Your task to perform on an android device: check android version Image 0: 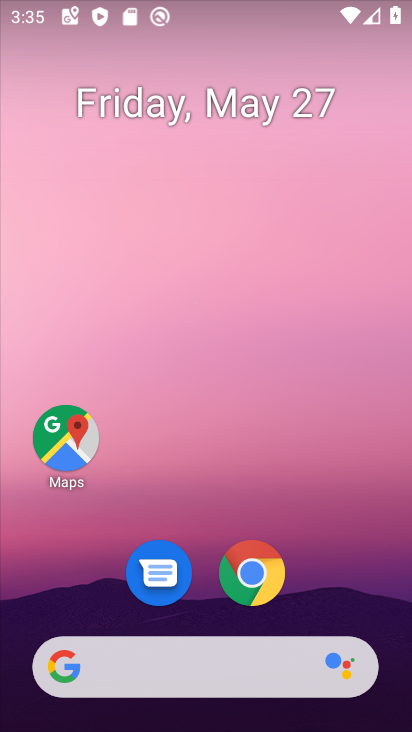
Step 0: drag from (224, 483) to (243, 4)
Your task to perform on an android device: check android version Image 1: 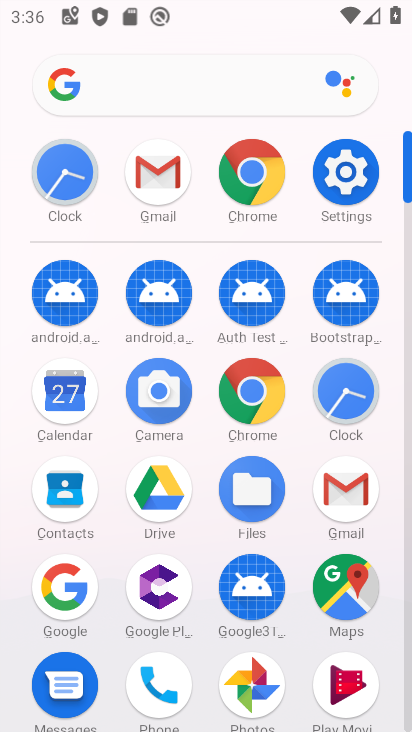
Step 1: click (343, 173)
Your task to perform on an android device: check android version Image 2: 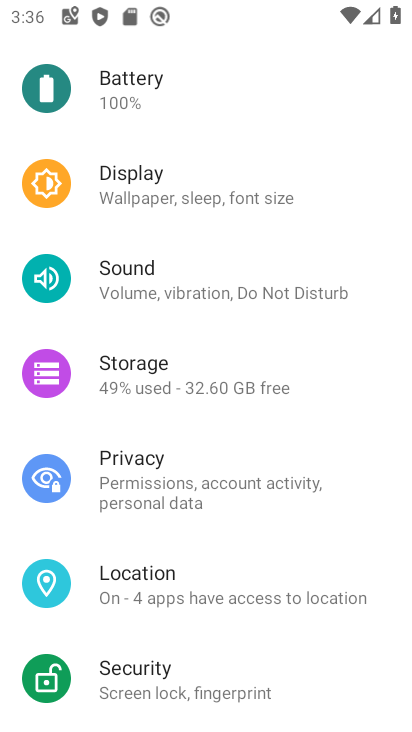
Step 2: drag from (236, 669) to (232, 157)
Your task to perform on an android device: check android version Image 3: 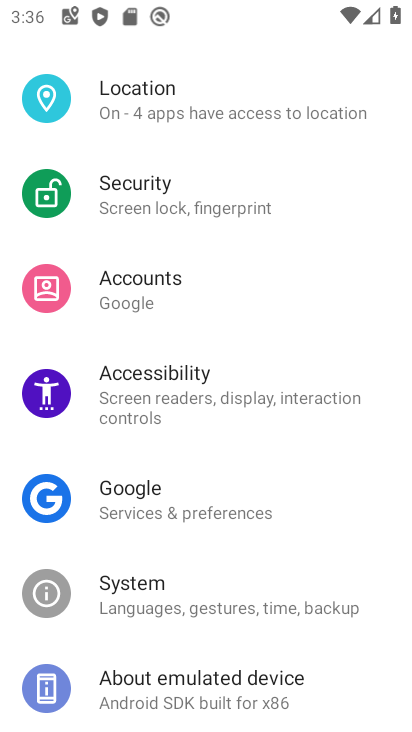
Step 3: click (207, 687)
Your task to perform on an android device: check android version Image 4: 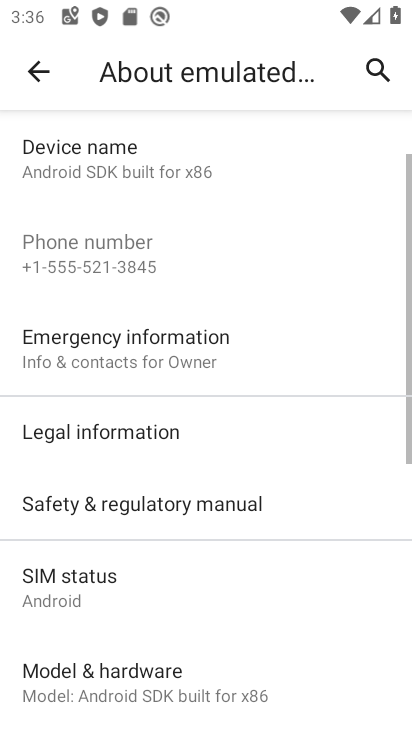
Step 4: drag from (249, 618) to (276, 176)
Your task to perform on an android device: check android version Image 5: 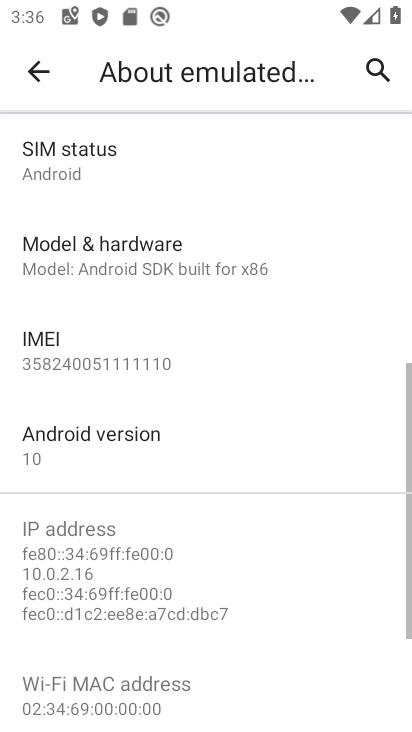
Step 5: click (132, 445)
Your task to perform on an android device: check android version Image 6: 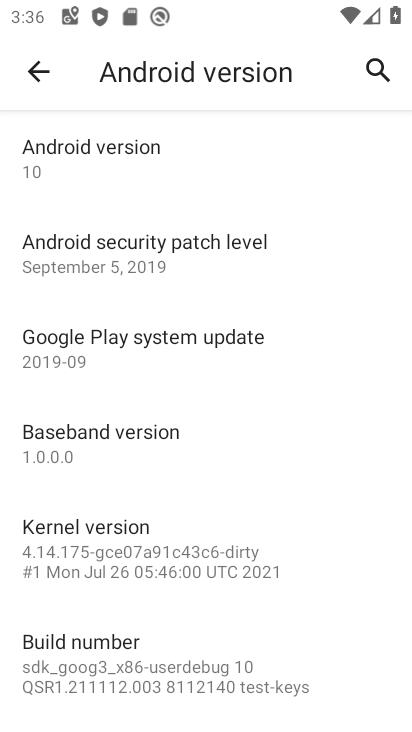
Step 6: task complete